Your task to perform on an android device: turn on wifi Image 0: 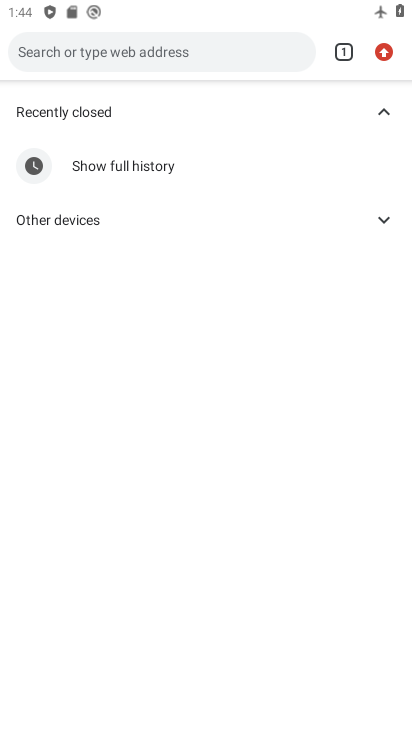
Step 0: press back button
Your task to perform on an android device: turn on wifi Image 1: 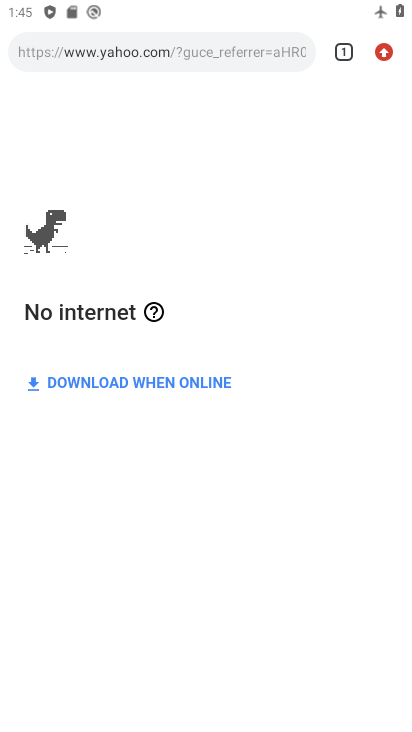
Step 1: press back button
Your task to perform on an android device: turn on wifi Image 2: 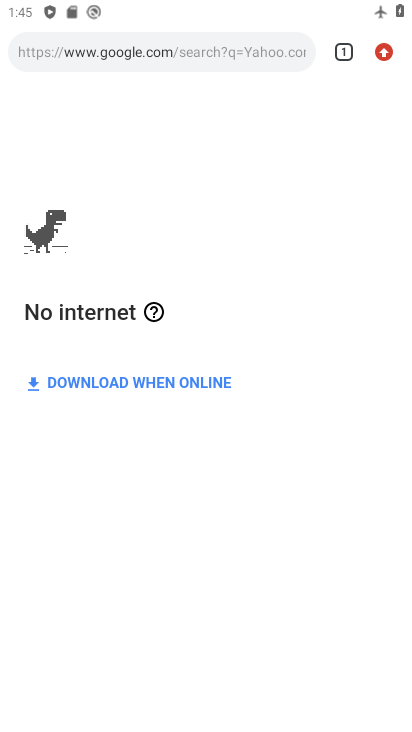
Step 2: press home button
Your task to perform on an android device: turn on wifi Image 3: 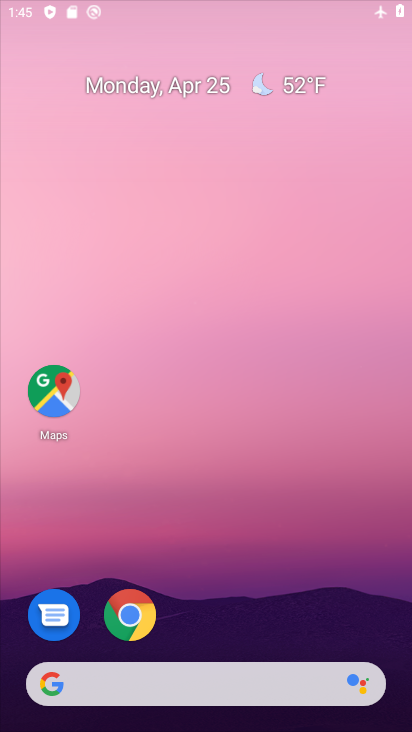
Step 3: drag from (184, 604) to (184, 157)
Your task to perform on an android device: turn on wifi Image 4: 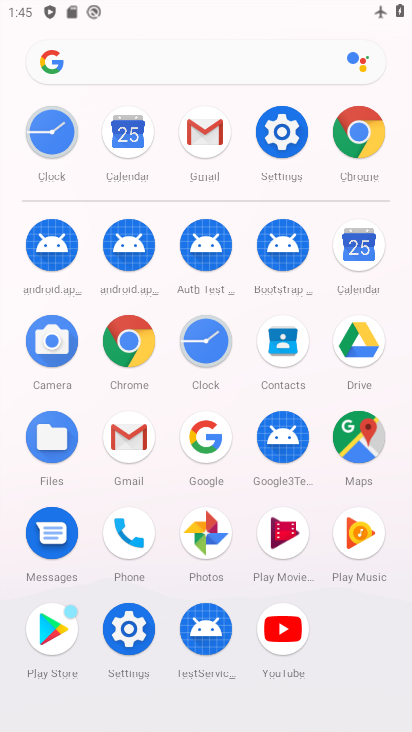
Step 4: click (282, 133)
Your task to perform on an android device: turn on wifi Image 5: 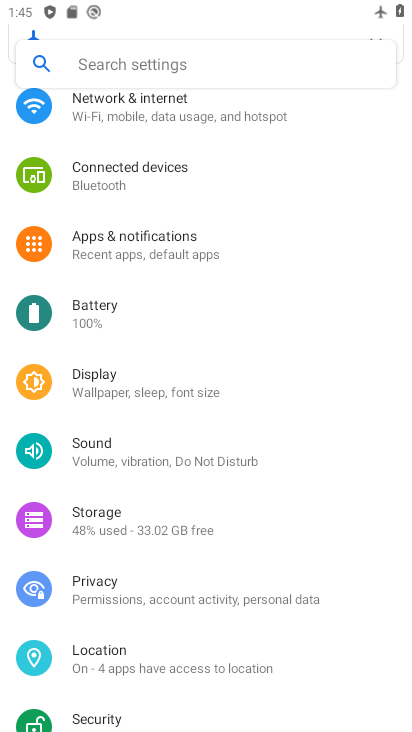
Step 5: click (240, 125)
Your task to perform on an android device: turn on wifi Image 6: 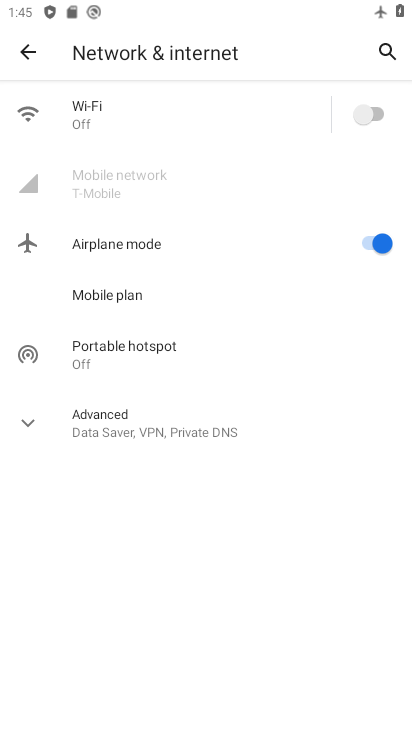
Step 6: click (360, 117)
Your task to perform on an android device: turn on wifi Image 7: 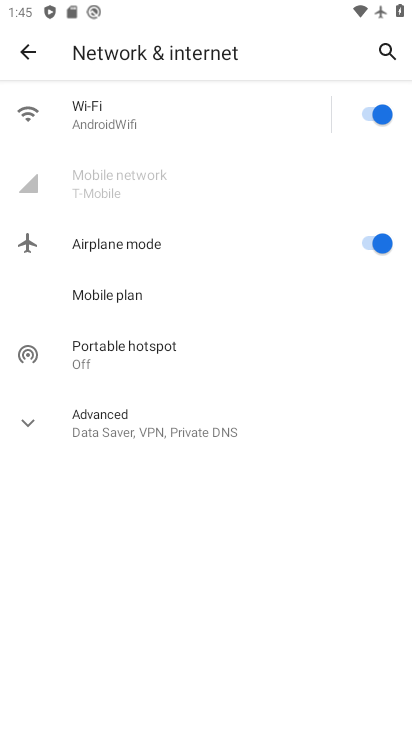
Step 7: task complete